Your task to perform on an android device: toggle priority inbox in the gmail app Image 0: 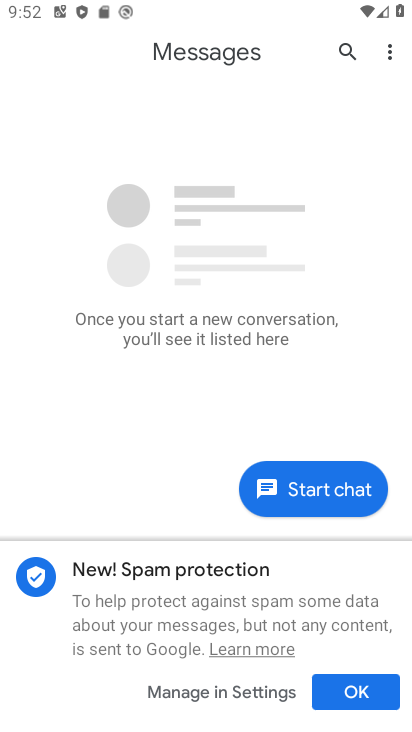
Step 0: press home button
Your task to perform on an android device: toggle priority inbox in the gmail app Image 1: 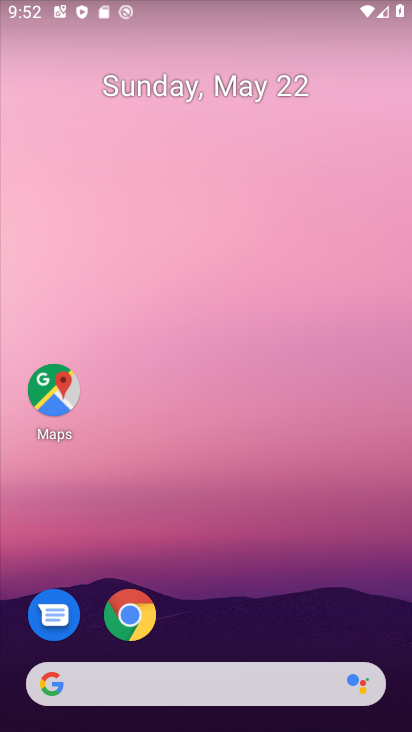
Step 1: drag from (313, 625) to (261, 152)
Your task to perform on an android device: toggle priority inbox in the gmail app Image 2: 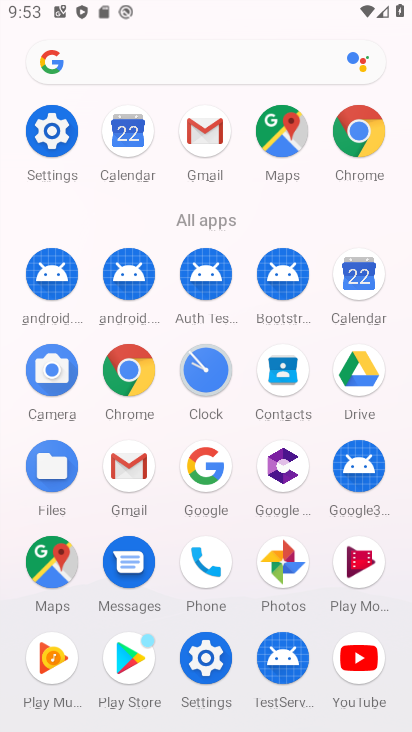
Step 2: click (49, 126)
Your task to perform on an android device: toggle priority inbox in the gmail app Image 3: 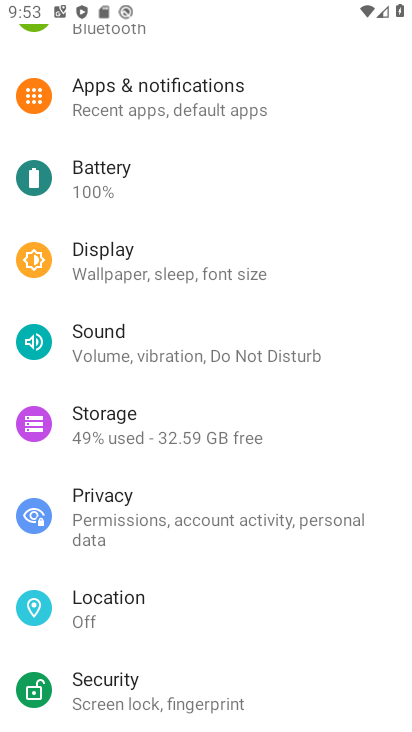
Step 3: press home button
Your task to perform on an android device: toggle priority inbox in the gmail app Image 4: 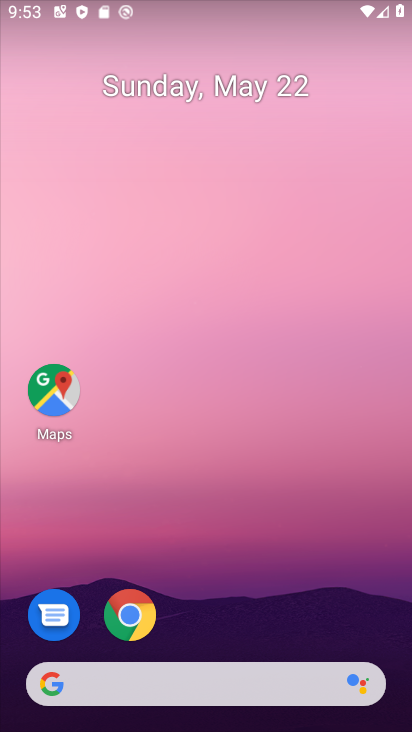
Step 4: drag from (219, 603) to (250, 93)
Your task to perform on an android device: toggle priority inbox in the gmail app Image 5: 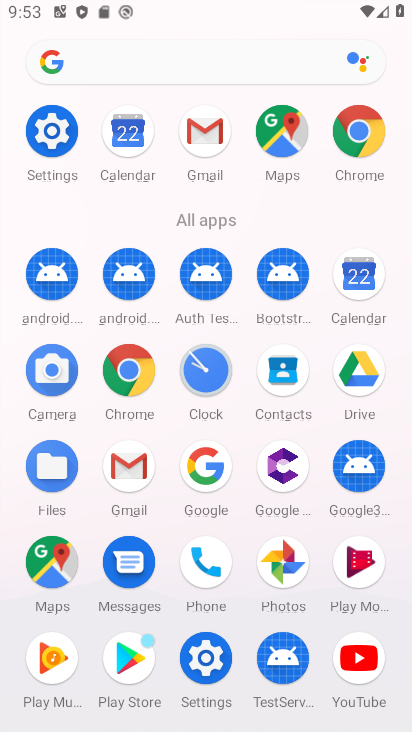
Step 5: click (199, 141)
Your task to perform on an android device: toggle priority inbox in the gmail app Image 6: 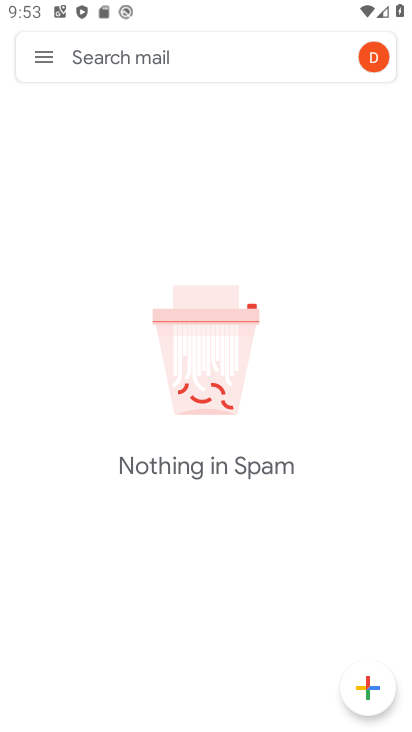
Step 6: click (34, 55)
Your task to perform on an android device: toggle priority inbox in the gmail app Image 7: 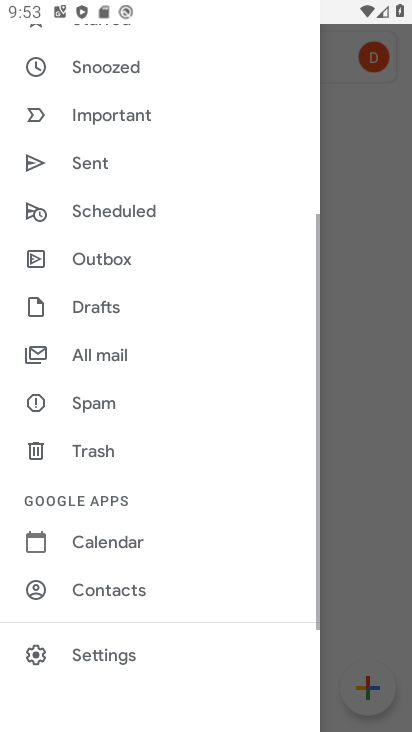
Step 7: drag from (130, 621) to (203, 242)
Your task to perform on an android device: toggle priority inbox in the gmail app Image 8: 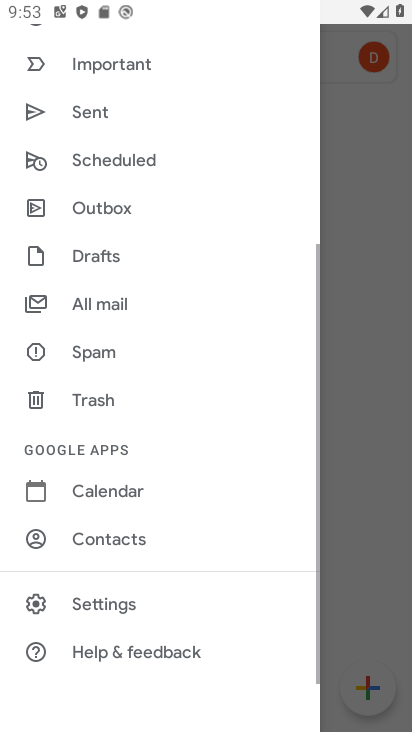
Step 8: click (132, 606)
Your task to perform on an android device: toggle priority inbox in the gmail app Image 9: 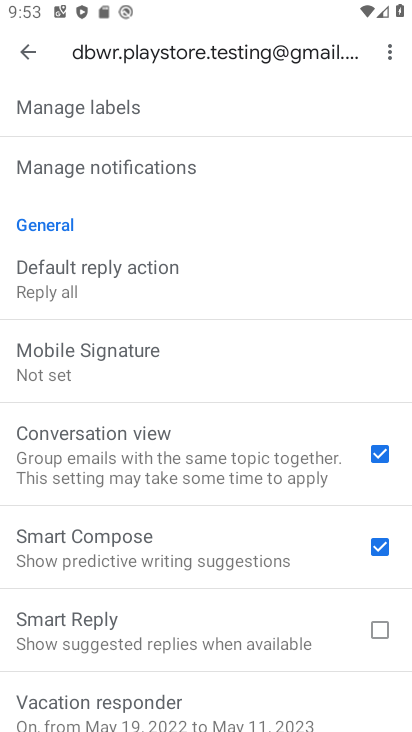
Step 9: drag from (158, 267) to (109, 692)
Your task to perform on an android device: toggle priority inbox in the gmail app Image 10: 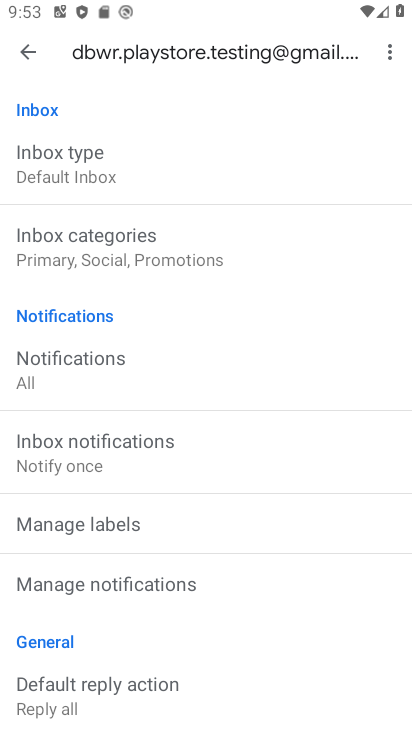
Step 10: click (99, 156)
Your task to perform on an android device: toggle priority inbox in the gmail app Image 11: 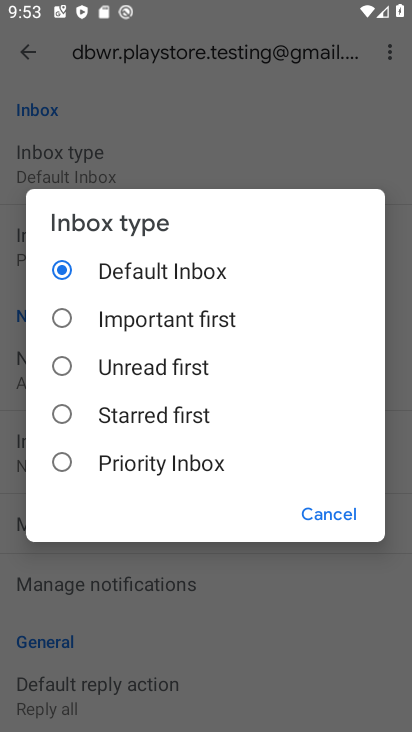
Step 11: click (127, 474)
Your task to perform on an android device: toggle priority inbox in the gmail app Image 12: 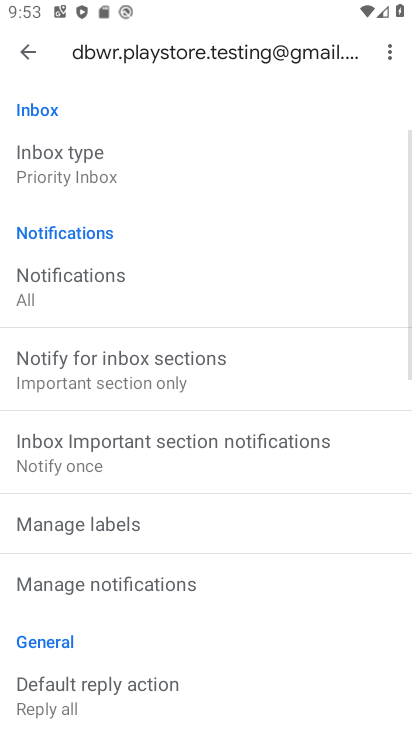
Step 12: task complete